Your task to perform on an android device: see tabs open on other devices in the chrome app Image 0: 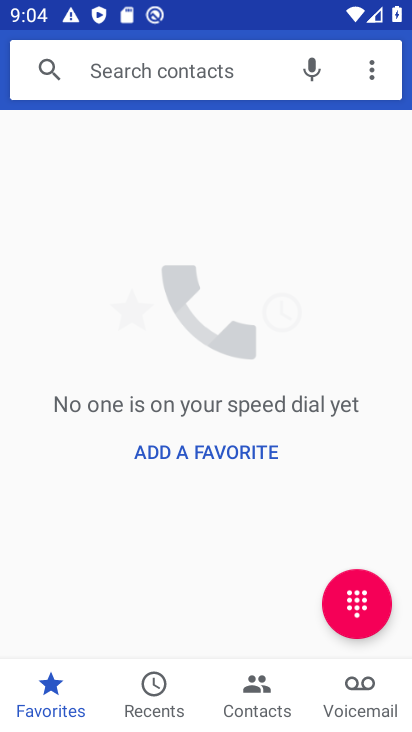
Step 0: press home button
Your task to perform on an android device: see tabs open on other devices in the chrome app Image 1: 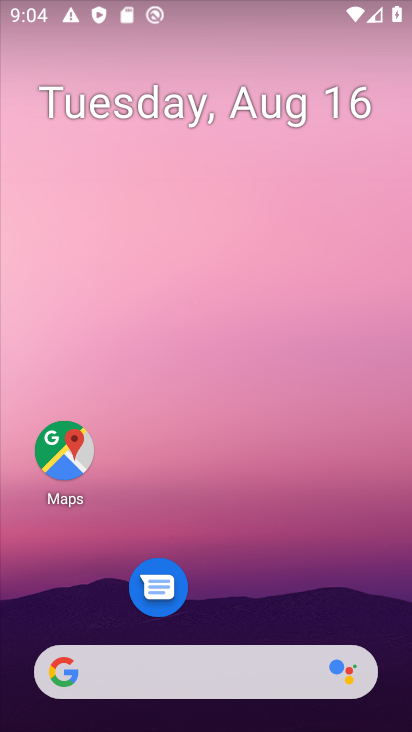
Step 1: drag from (250, 618) to (161, 46)
Your task to perform on an android device: see tabs open on other devices in the chrome app Image 2: 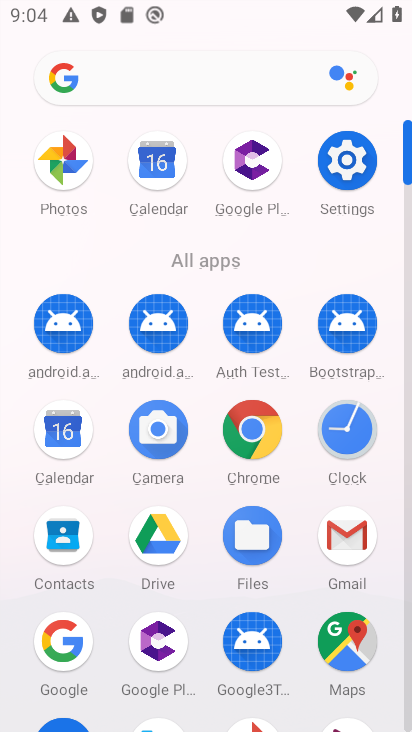
Step 2: click (245, 437)
Your task to perform on an android device: see tabs open on other devices in the chrome app Image 3: 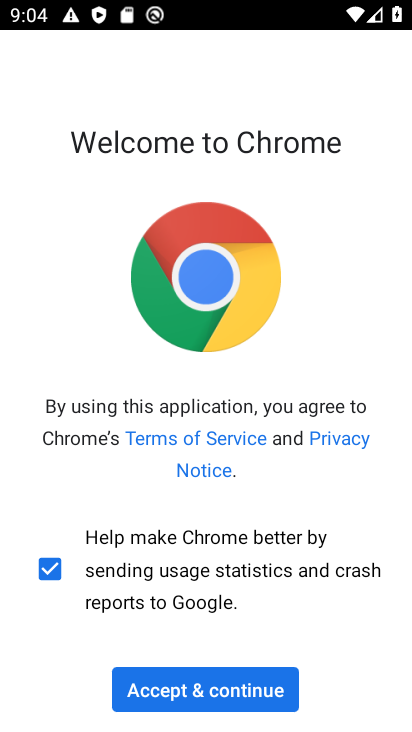
Step 3: click (277, 688)
Your task to perform on an android device: see tabs open on other devices in the chrome app Image 4: 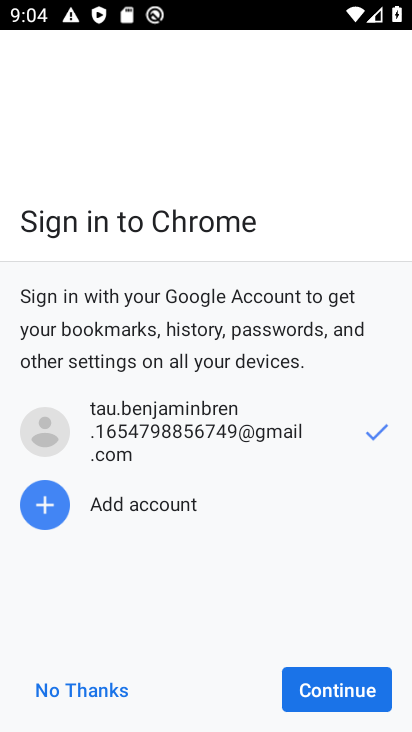
Step 4: click (339, 680)
Your task to perform on an android device: see tabs open on other devices in the chrome app Image 5: 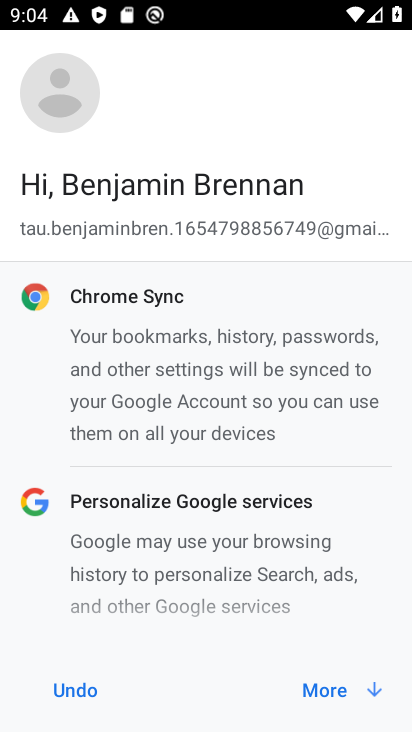
Step 5: click (339, 680)
Your task to perform on an android device: see tabs open on other devices in the chrome app Image 6: 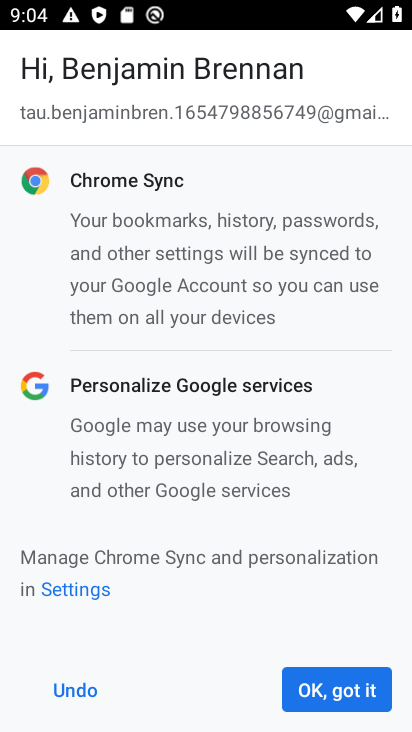
Step 6: click (339, 680)
Your task to perform on an android device: see tabs open on other devices in the chrome app Image 7: 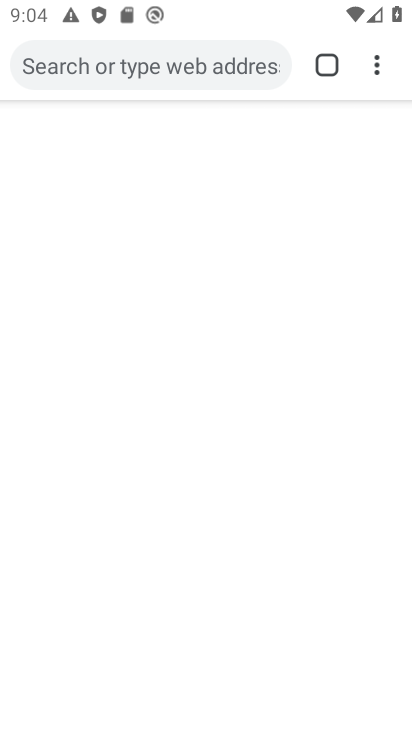
Step 7: click (370, 80)
Your task to perform on an android device: see tabs open on other devices in the chrome app Image 8: 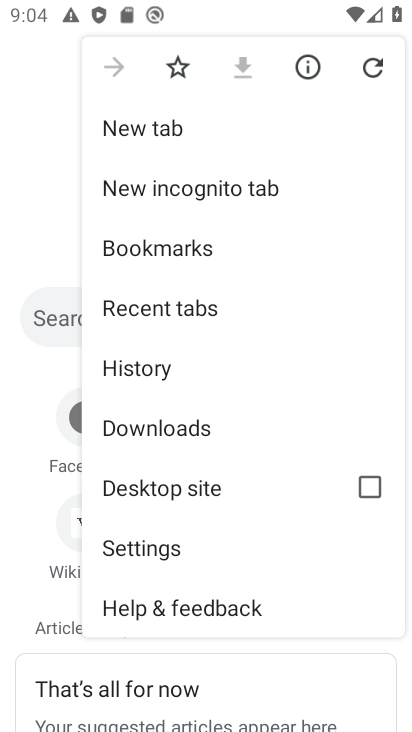
Step 8: click (137, 251)
Your task to perform on an android device: see tabs open on other devices in the chrome app Image 9: 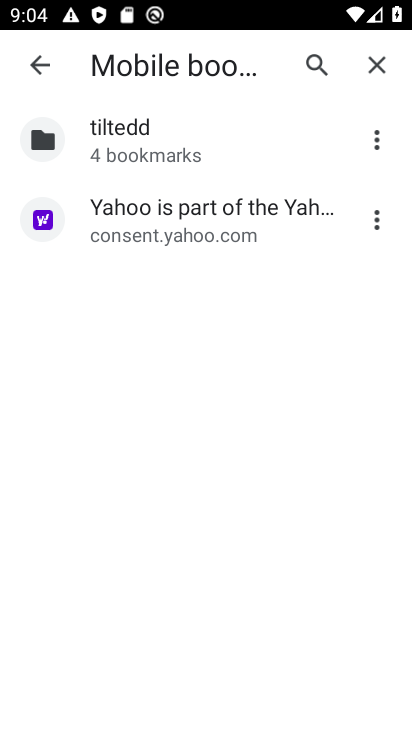
Step 9: task complete